Your task to perform on an android device: open device folders in google photos Image 0: 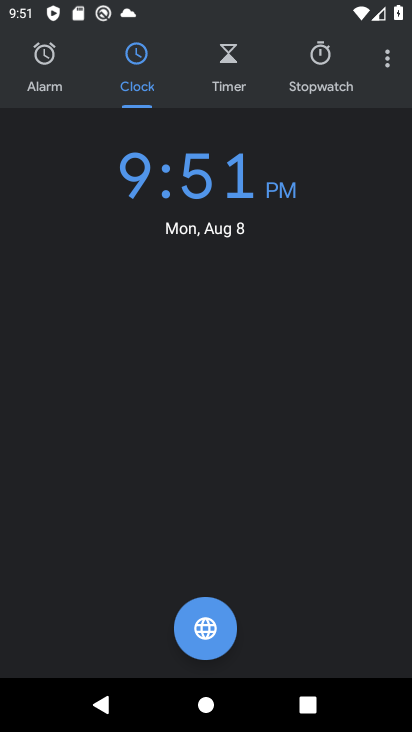
Step 0: press home button
Your task to perform on an android device: open device folders in google photos Image 1: 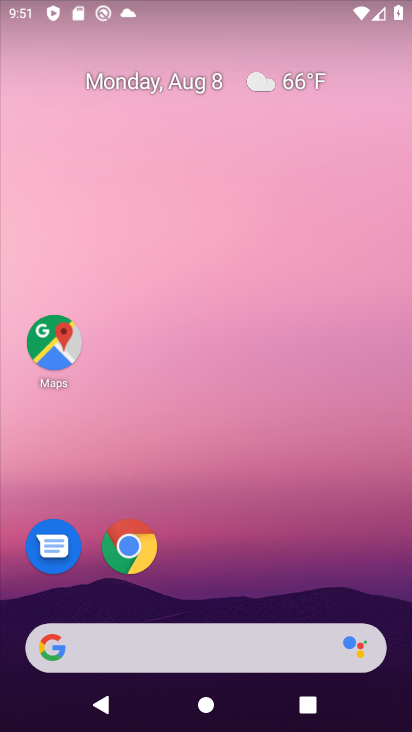
Step 1: drag from (242, 533) to (235, 181)
Your task to perform on an android device: open device folders in google photos Image 2: 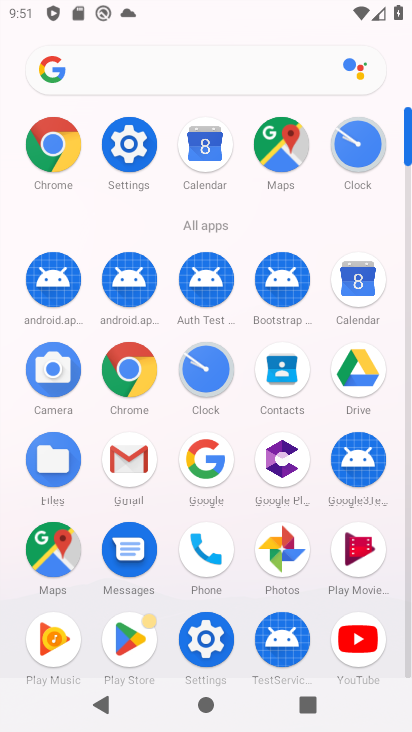
Step 2: click (284, 547)
Your task to perform on an android device: open device folders in google photos Image 3: 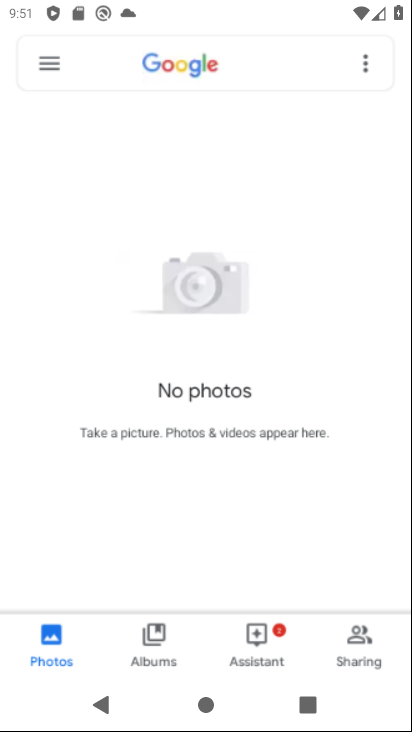
Step 3: task complete